Your task to perform on an android device: check the backup settings in the google photos Image 0: 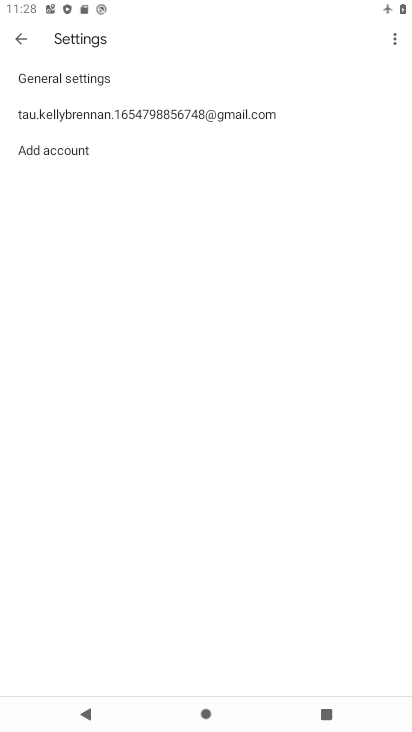
Step 0: press home button
Your task to perform on an android device: check the backup settings in the google photos Image 1: 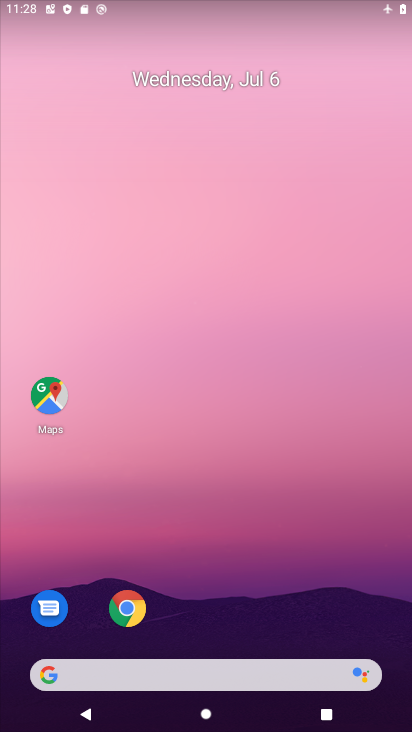
Step 1: drag from (195, 665) to (225, 264)
Your task to perform on an android device: check the backup settings in the google photos Image 2: 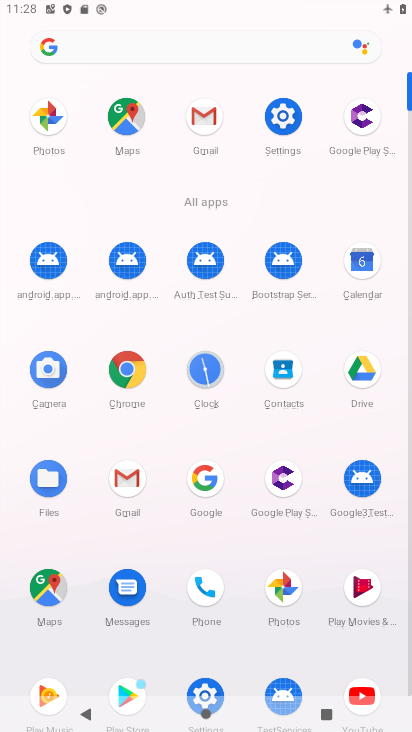
Step 2: click (289, 583)
Your task to perform on an android device: check the backup settings in the google photos Image 3: 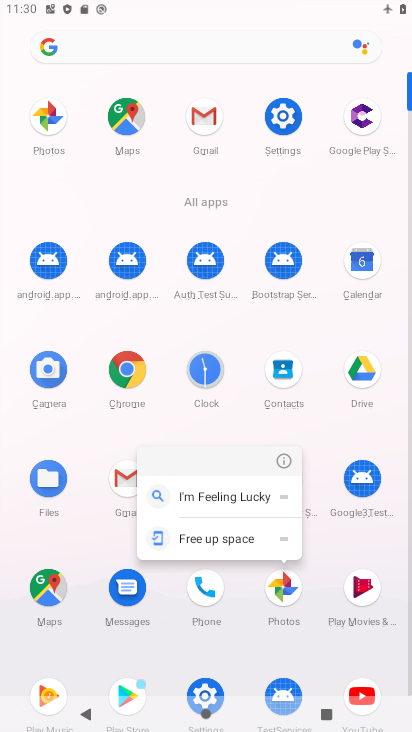
Step 3: click (277, 592)
Your task to perform on an android device: check the backup settings in the google photos Image 4: 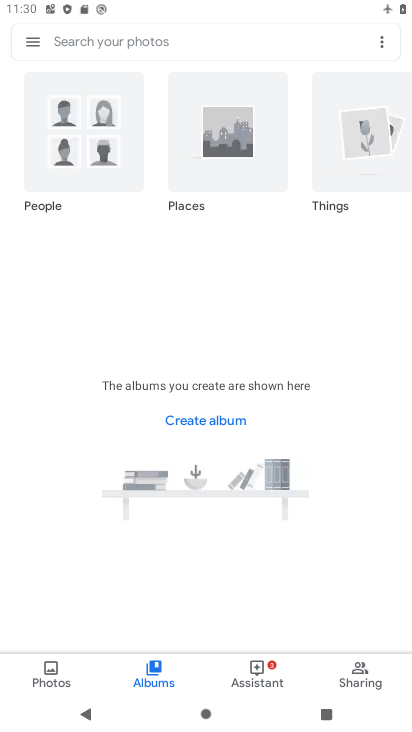
Step 4: click (29, 42)
Your task to perform on an android device: check the backup settings in the google photos Image 5: 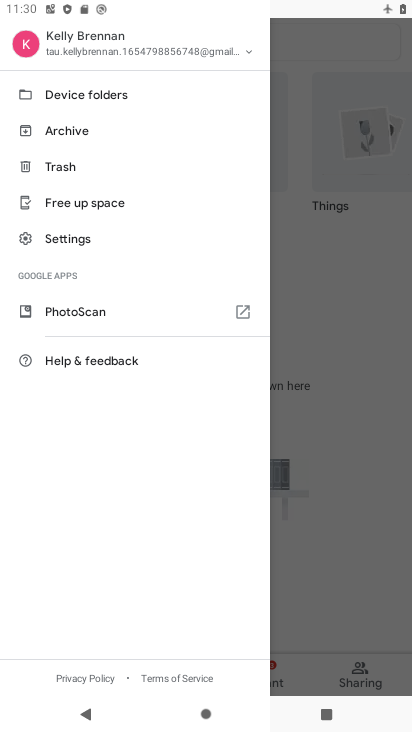
Step 5: click (86, 230)
Your task to perform on an android device: check the backup settings in the google photos Image 6: 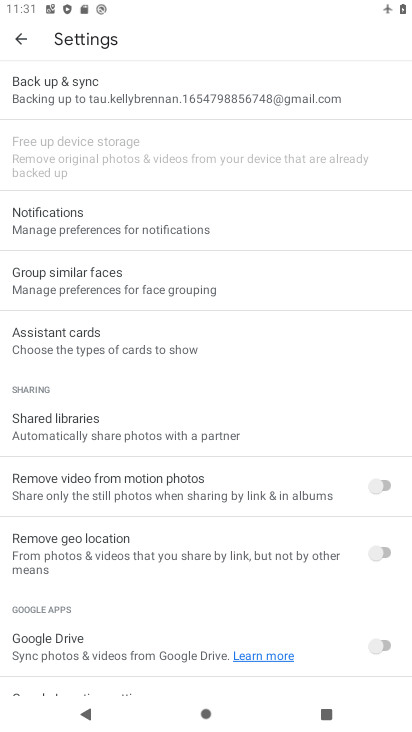
Step 6: click (82, 86)
Your task to perform on an android device: check the backup settings in the google photos Image 7: 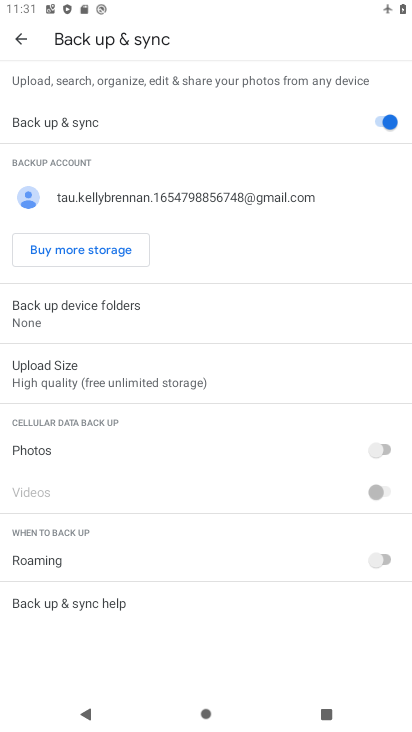
Step 7: task complete